Your task to perform on an android device: toggle translation in the chrome app Image 0: 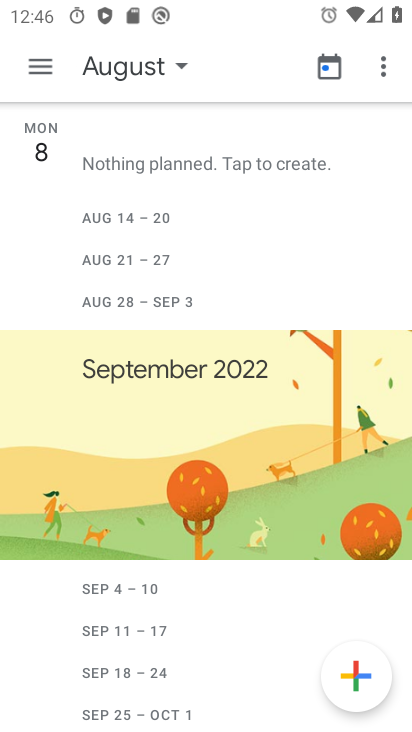
Step 0: press home button
Your task to perform on an android device: toggle translation in the chrome app Image 1: 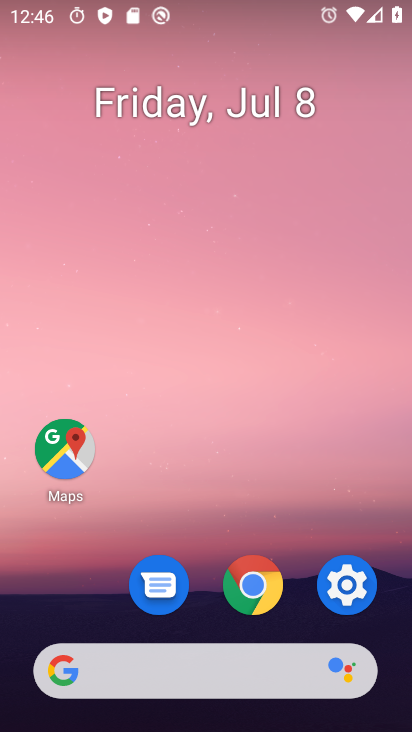
Step 1: click (248, 568)
Your task to perform on an android device: toggle translation in the chrome app Image 2: 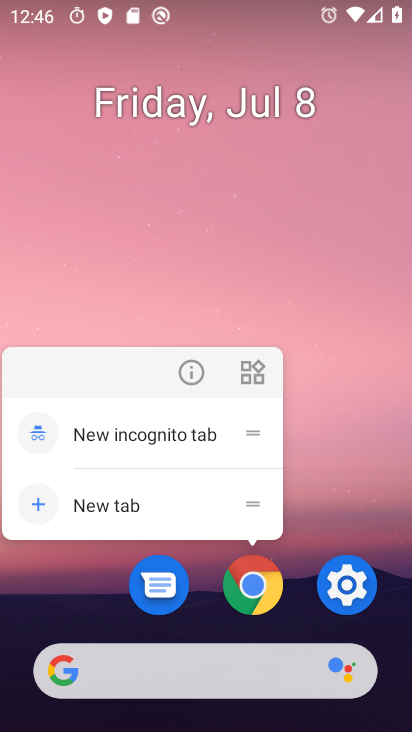
Step 2: click (247, 592)
Your task to perform on an android device: toggle translation in the chrome app Image 3: 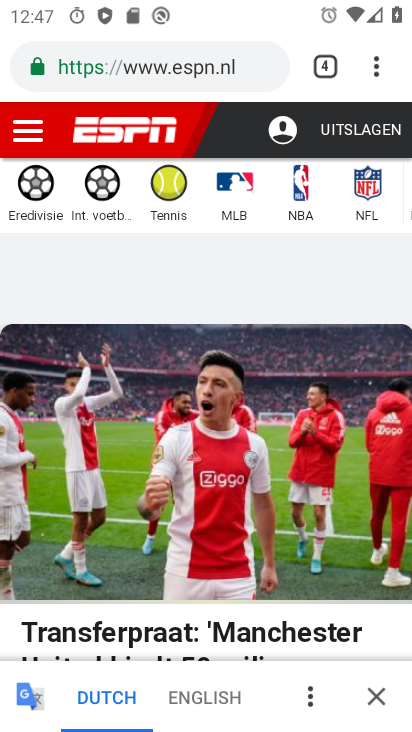
Step 3: click (373, 73)
Your task to perform on an android device: toggle translation in the chrome app Image 4: 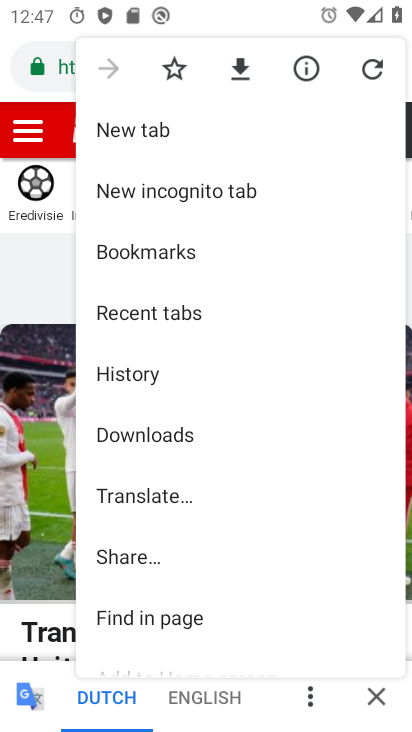
Step 4: drag from (180, 537) to (235, 286)
Your task to perform on an android device: toggle translation in the chrome app Image 5: 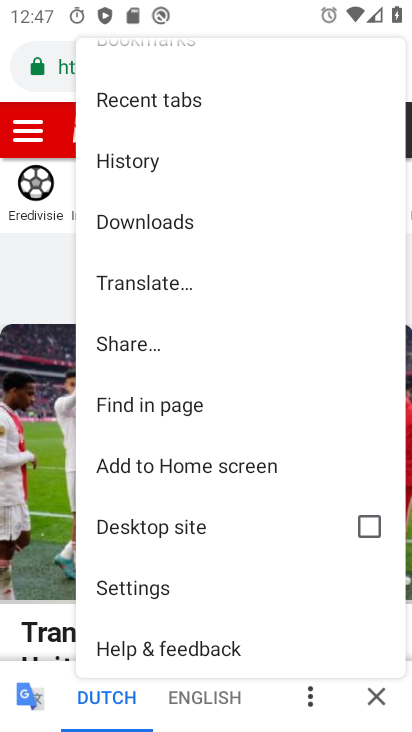
Step 5: click (146, 584)
Your task to perform on an android device: toggle translation in the chrome app Image 6: 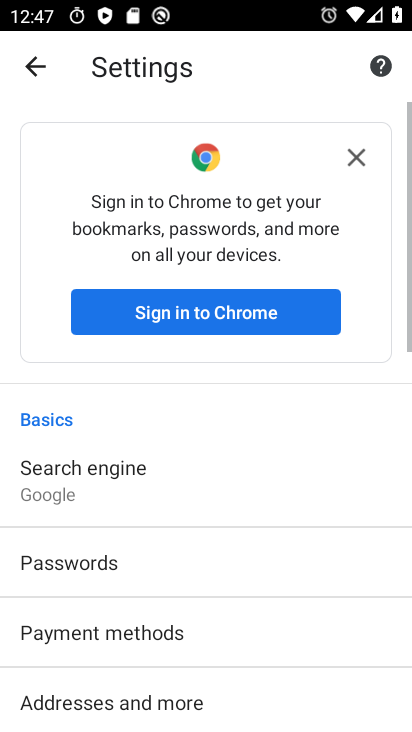
Step 6: drag from (133, 601) to (225, 228)
Your task to perform on an android device: toggle translation in the chrome app Image 7: 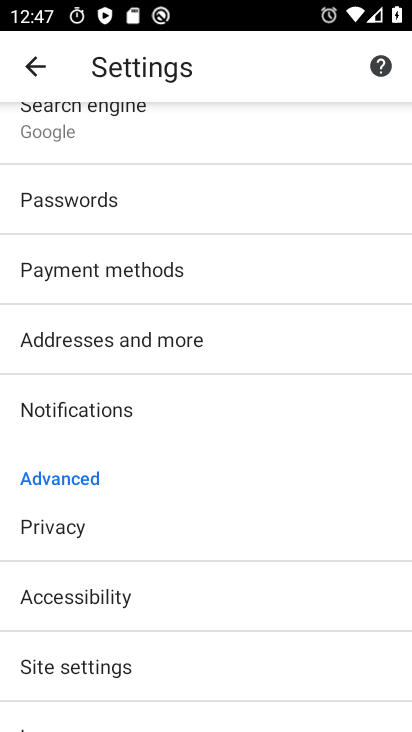
Step 7: drag from (106, 641) to (137, 499)
Your task to perform on an android device: toggle translation in the chrome app Image 8: 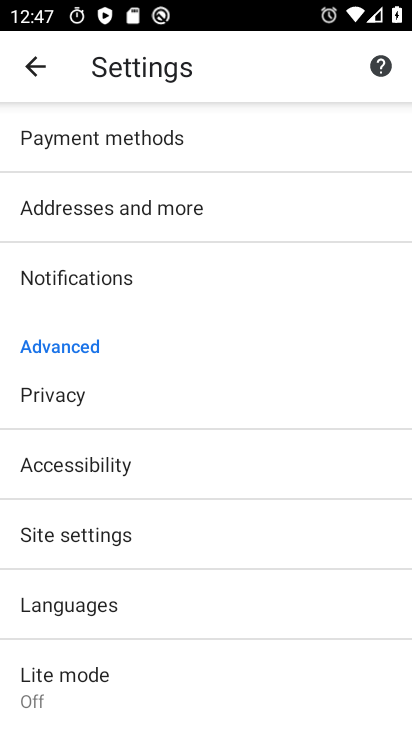
Step 8: drag from (156, 569) to (199, 394)
Your task to perform on an android device: toggle translation in the chrome app Image 9: 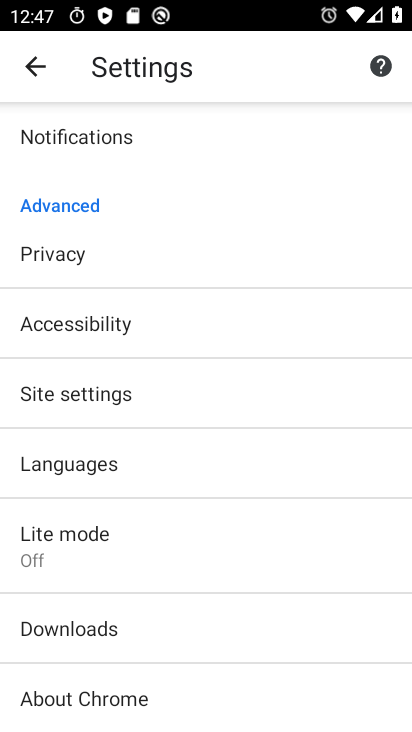
Step 9: drag from (146, 590) to (176, 374)
Your task to perform on an android device: toggle translation in the chrome app Image 10: 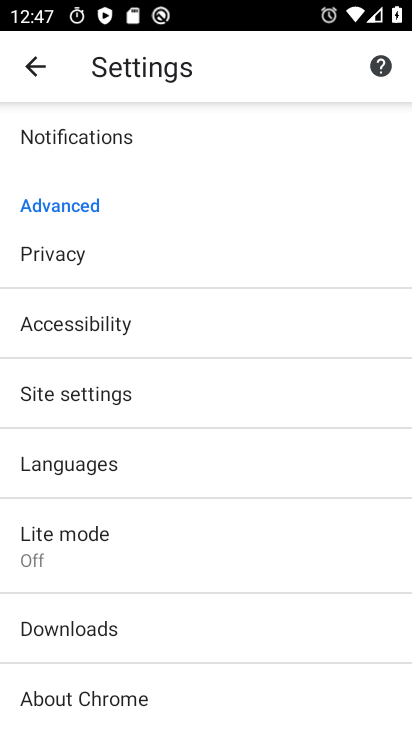
Step 10: click (104, 473)
Your task to perform on an android device: toggle translation in the chrome app Image 11: 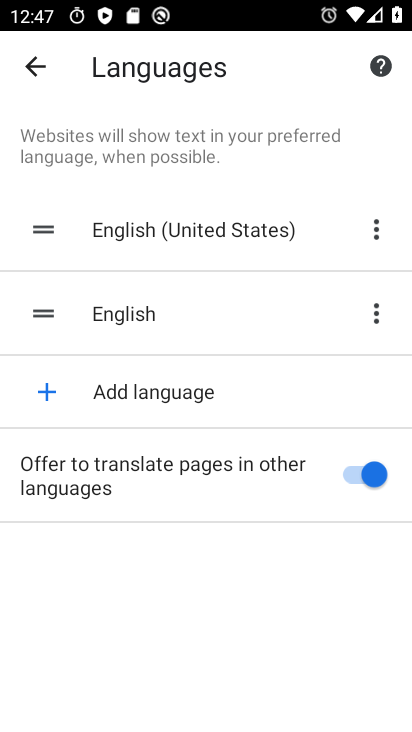
Step 11: click (332, 479)
Your task to perform on an android device: toggle translation in the chrome app Image 12: 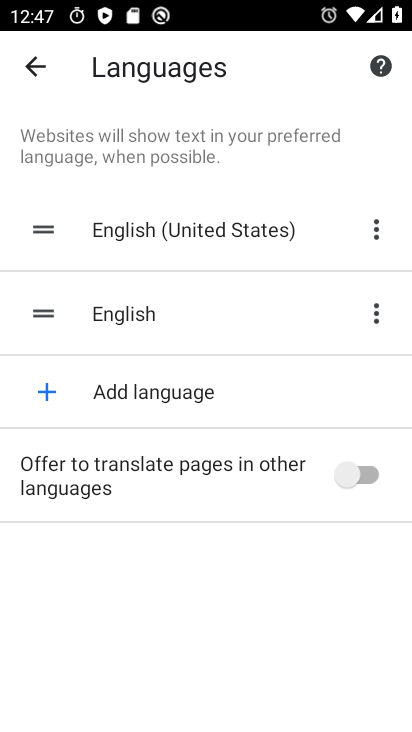
Step 12: click (333, 478)
Your task to perform on an android device: toggle translation in the chrome app Image 13: 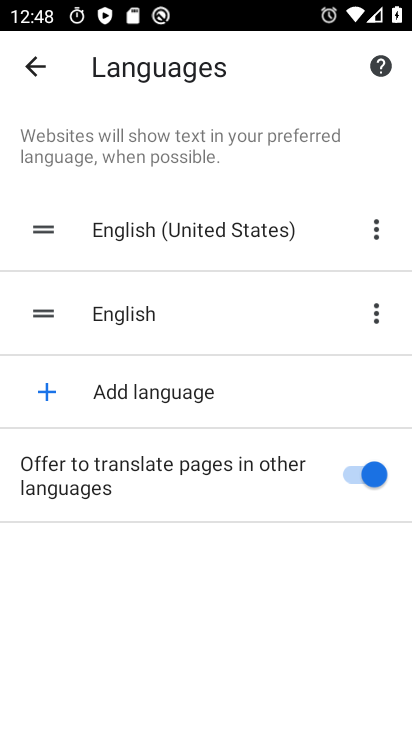
Step 13: task complete